Your task to perform on an android device: open wifi settings Image 0: 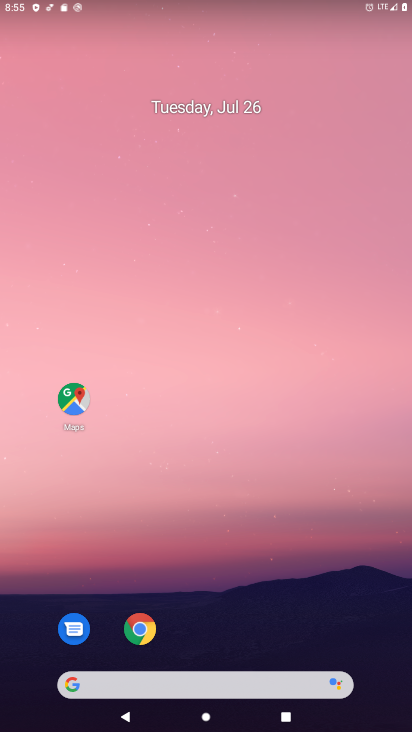
Step 0: click (216, 117)
Your task to perform on an android device: open wifi settings Image 1: 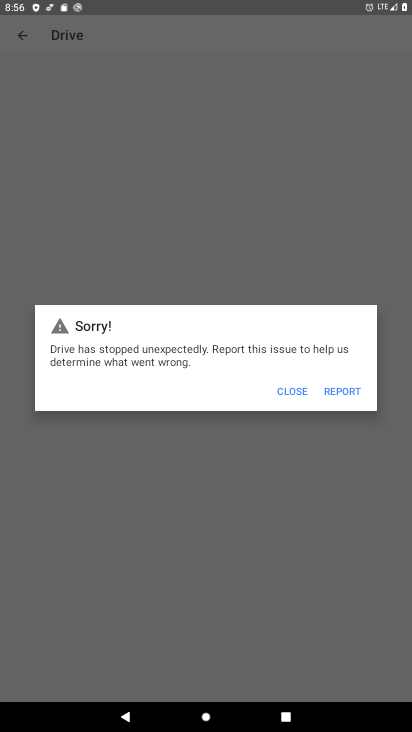
Step 1: press home button
Your task to perform on an android device: open wifi settings Image 2: 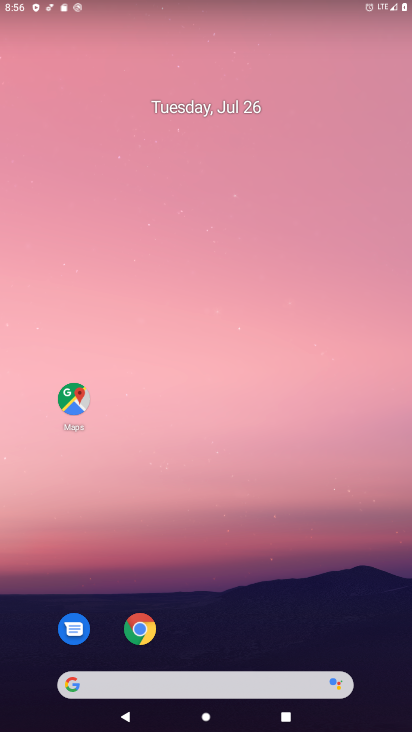
Step 2: drag from (218, 638) to (125, 20)
Your task to perform on an android device: open wifi settings Image 3: 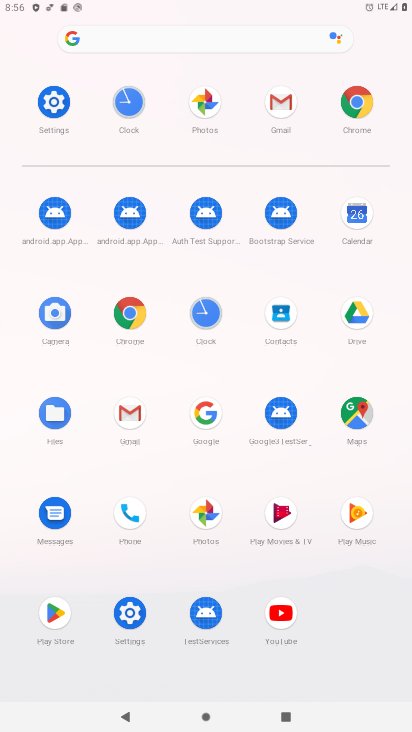
Step 3: click (138, 623)
Your task to perform on an android device: open wifi settings Image 4: 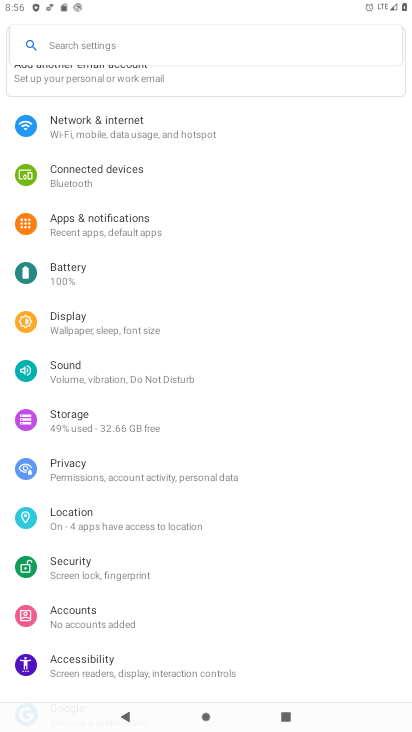
Step 4: click (53, 135)
Your task to perform on an android device: open wifi settings Image 5: 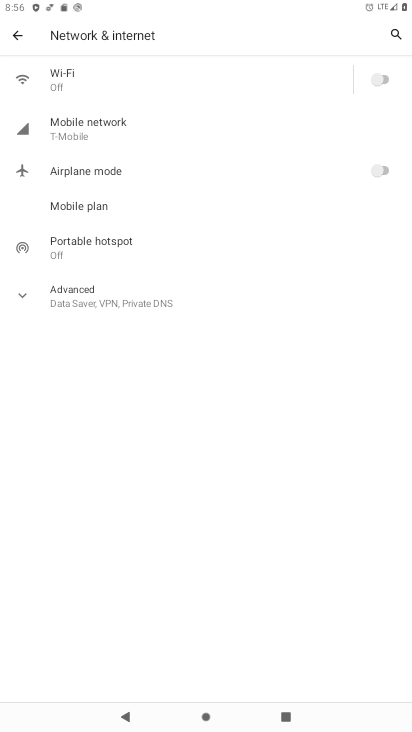
Step 5: click (55, 69)
Your task to perform on an android device: open wifi settings Image 6: 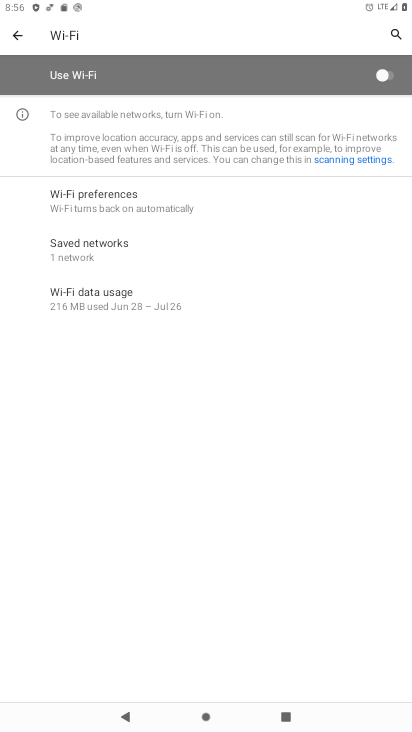
Step 6: task complete